Your task to perform on an android device: turn off smart reply in the gmail app Image 0: 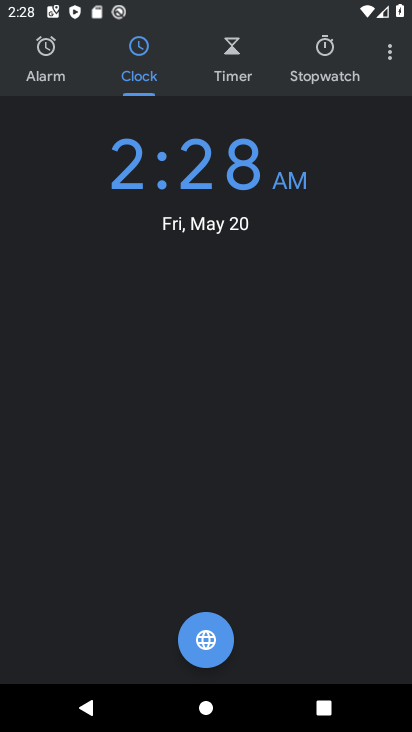
Step 0: press home button
Your task to perform on an android device: turn off smart reply in the gmail app Image 1: 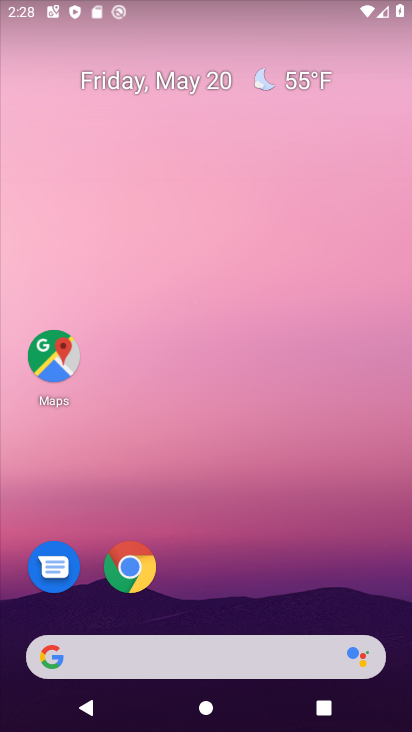
Step 1: drag from (231, 632) to (189, 262)
Your task to perform on an android device: turn off smart reply in the gmail app Image 2: 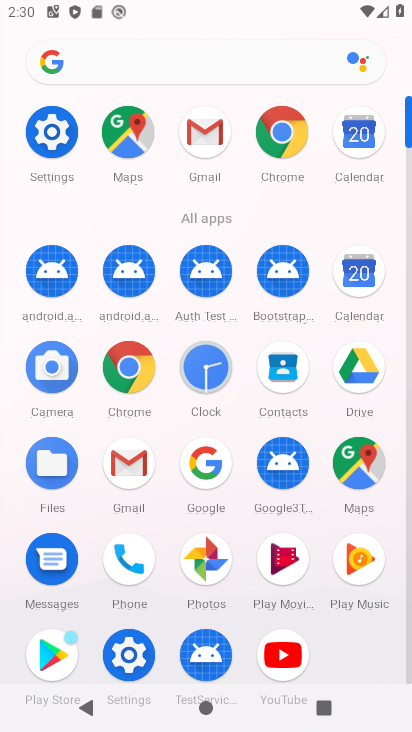
Step 2: click (126, 463)
Your task to perform on an android device: turn off smart reply in the gmail app Image 3: 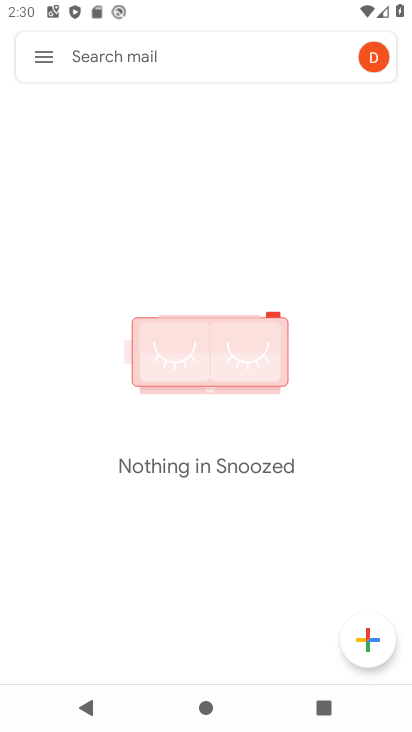
Step 3: click (38, 55)
Your task to perform on an android device: turn off smart reply in the gmail app Image 4: 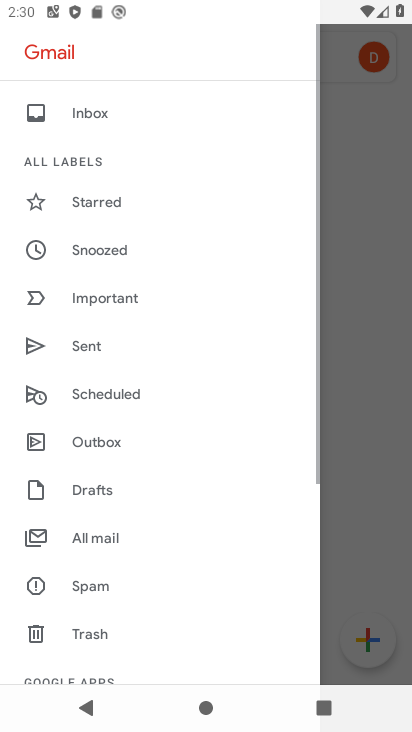
Step 4: drag from (87, 648) to (79, 278)
Your task to perform on an android device: turn off smart reply in the gmail app Image 5: 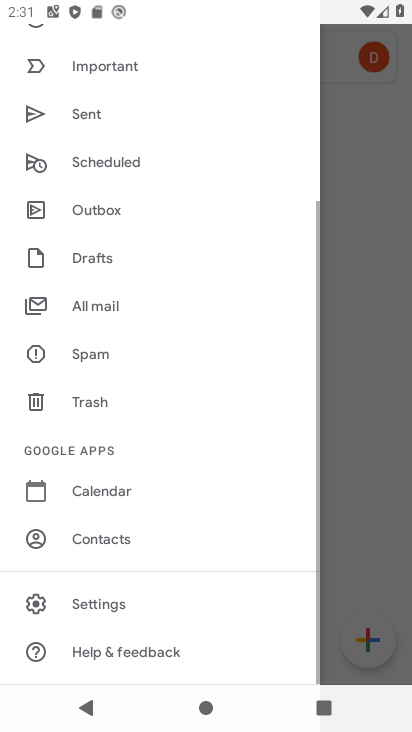
Step 5: click (105, 605)
Your task to perform on an android device: turn off smart reply in the gmail app Image 6: 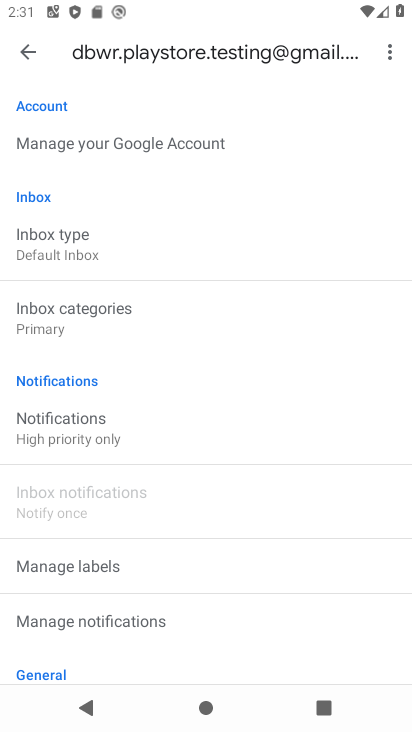
Step 6: drag from (66, 601) to (92, 161)
Your task to perform on an android device: turn off smart reply in the gmail app Image 7: 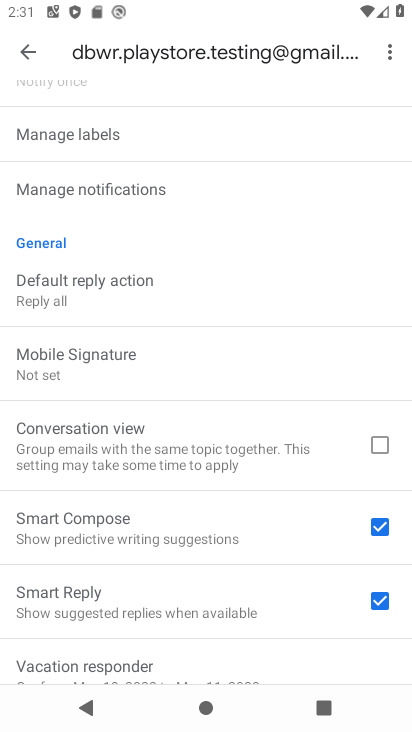
Step 7: click (381, 603)
Your task to perform on an android device: turn off smart reply in the gmail app Image 8: 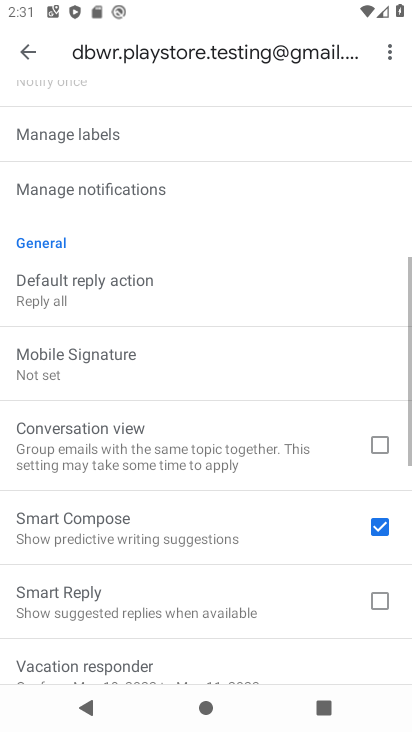
Step 8: task complete